Your task to perform on an android device: Open the phone app and click the voicemail tab. Image 0: 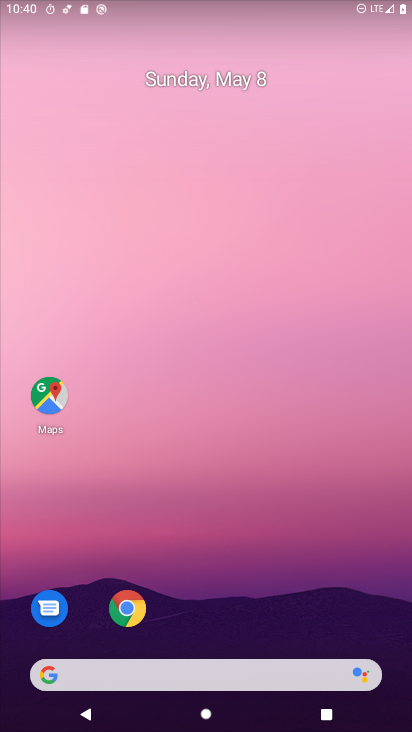
Step 0: drag from (239, 589) to (226, 144)
Your task to perform on an android device: Open the phone app and click the voicemail tab. Image 1: 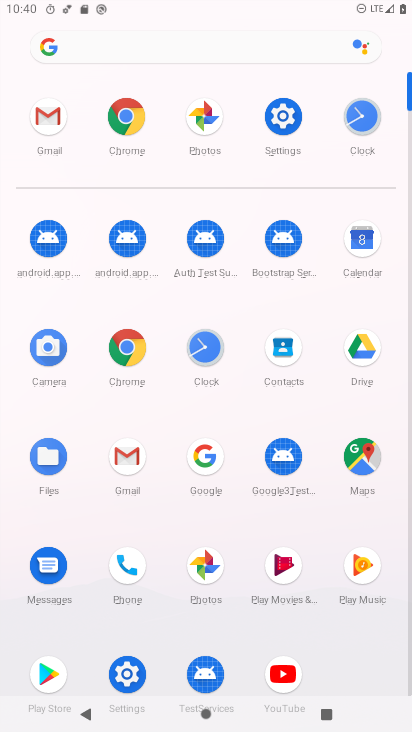
Step 1: click (110, 575)
Your task to perform on an android device: Open the phone app and click the voicemail tab. Image 2: 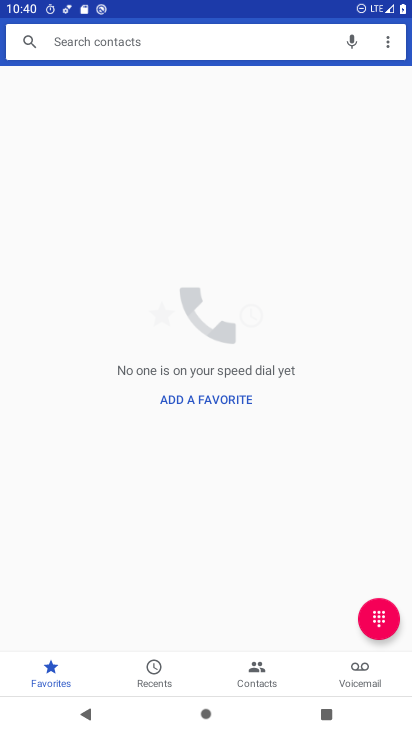
Step 2: click (343, 686)
Your task to perform on an android device: Open the phone app and click the voicemail tab. Image 3: 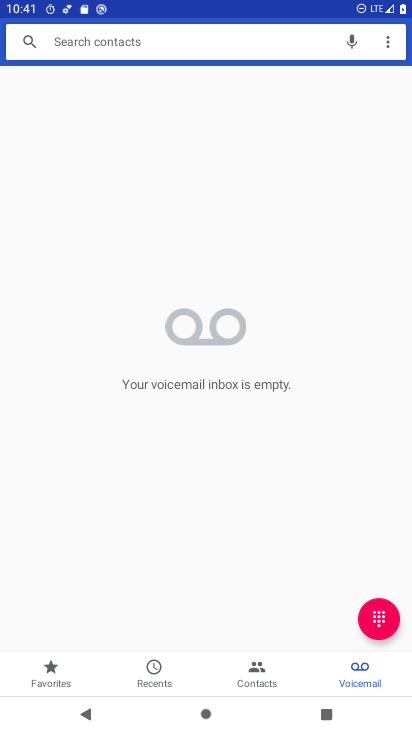
Step 3: task complete